Your task to perform on an android device: Show me recent news Image 0: 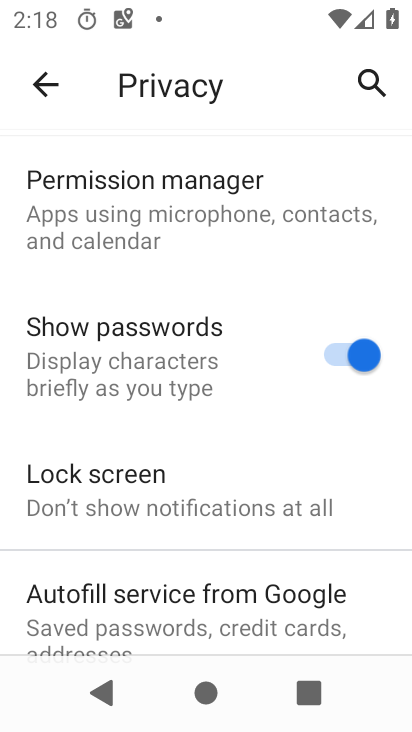
Step 0: press home button
Your task to perform on an android device: Show me recent news Image 1: 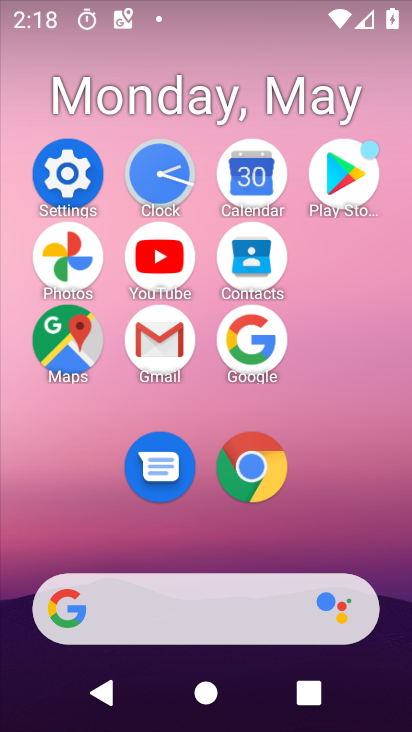
Step 1: click (258, 348)
Your task to perform on an android device: Show me recent news Image 2: 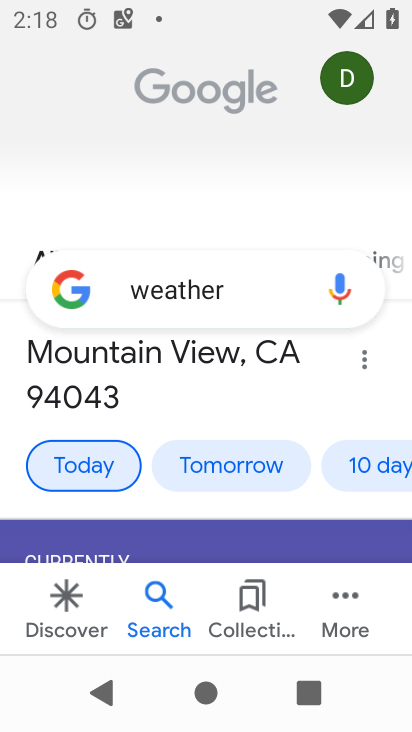
Step 2: click (253, 292)
Your task to perform on an android device: Show me recent news Image 3: 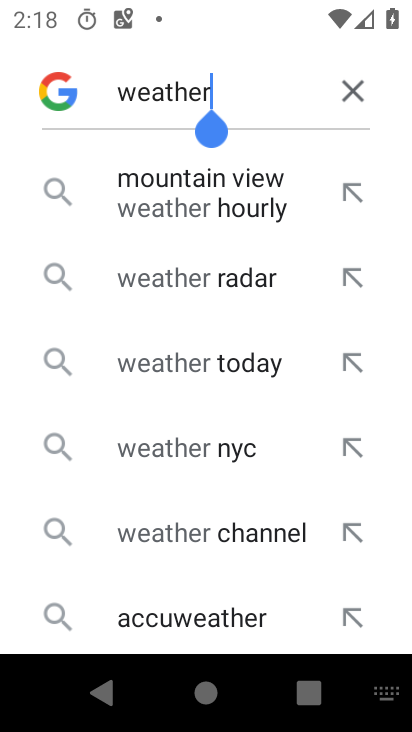
Step 3: click (379, 86)
Your task to perform on an android device: Show me recent news Image 4: 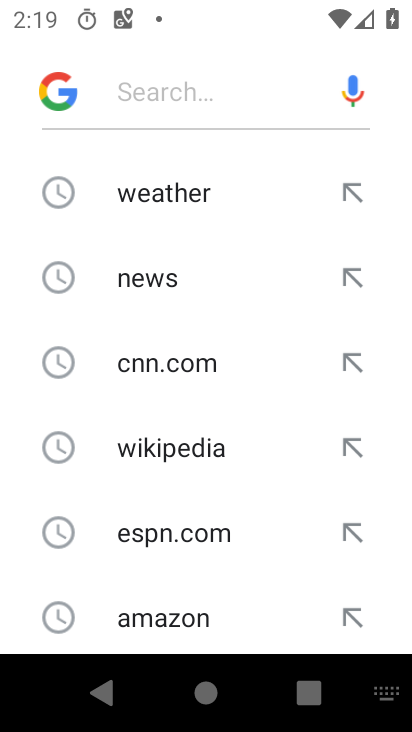
Step 4: drag from (233, 531) to (257, 178)
Your task to perform on an android device: Show me recent news Image 5: 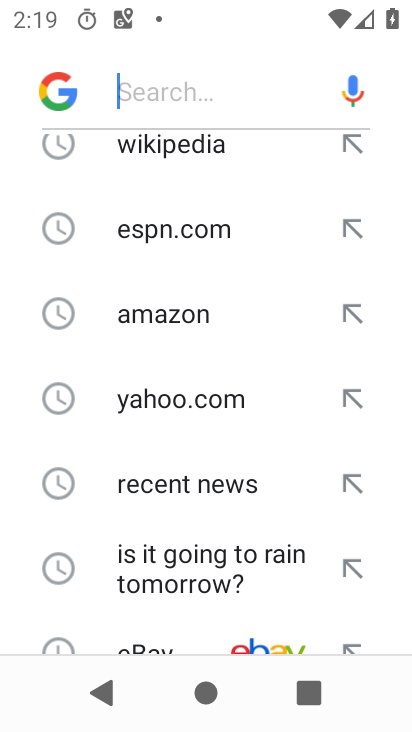
Step 5: drag from (199, 498) to (192, 191)
Your task to perform on an android device: Show me recent news Image 6: 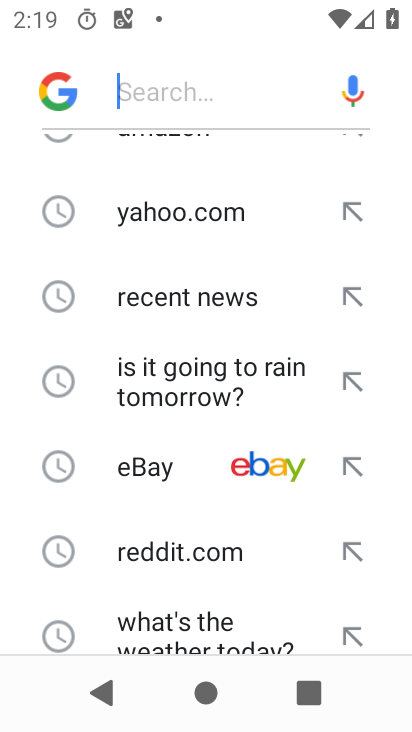
Step 6: click (195, 301)
Your task to perform on an android device: Show me recent news Image 7: 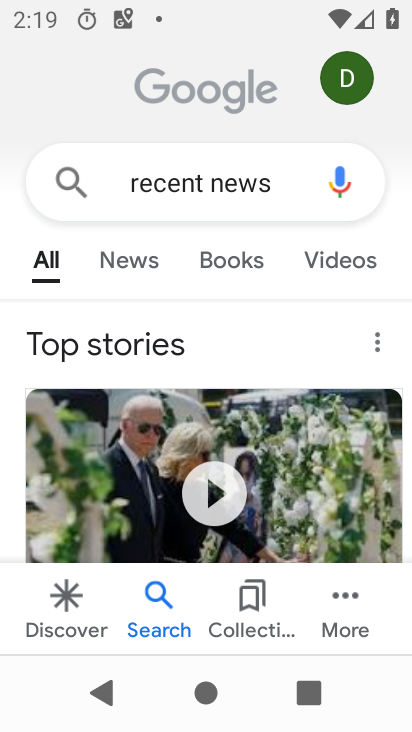
Step 7: task complete